Your task to perform on an android device: Go to settings Image 0: 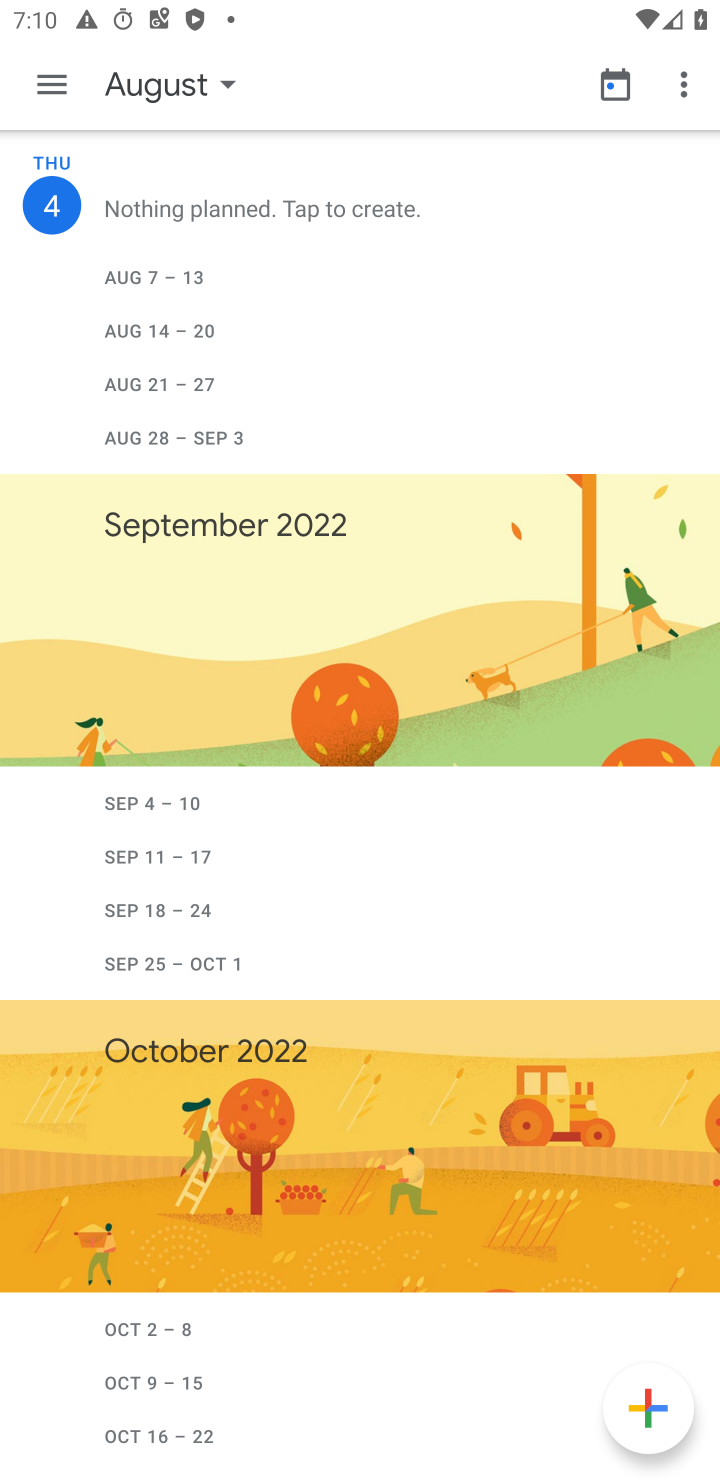
Step 0: press home button
Your task to perform on an android device: Go to settings Image 1: 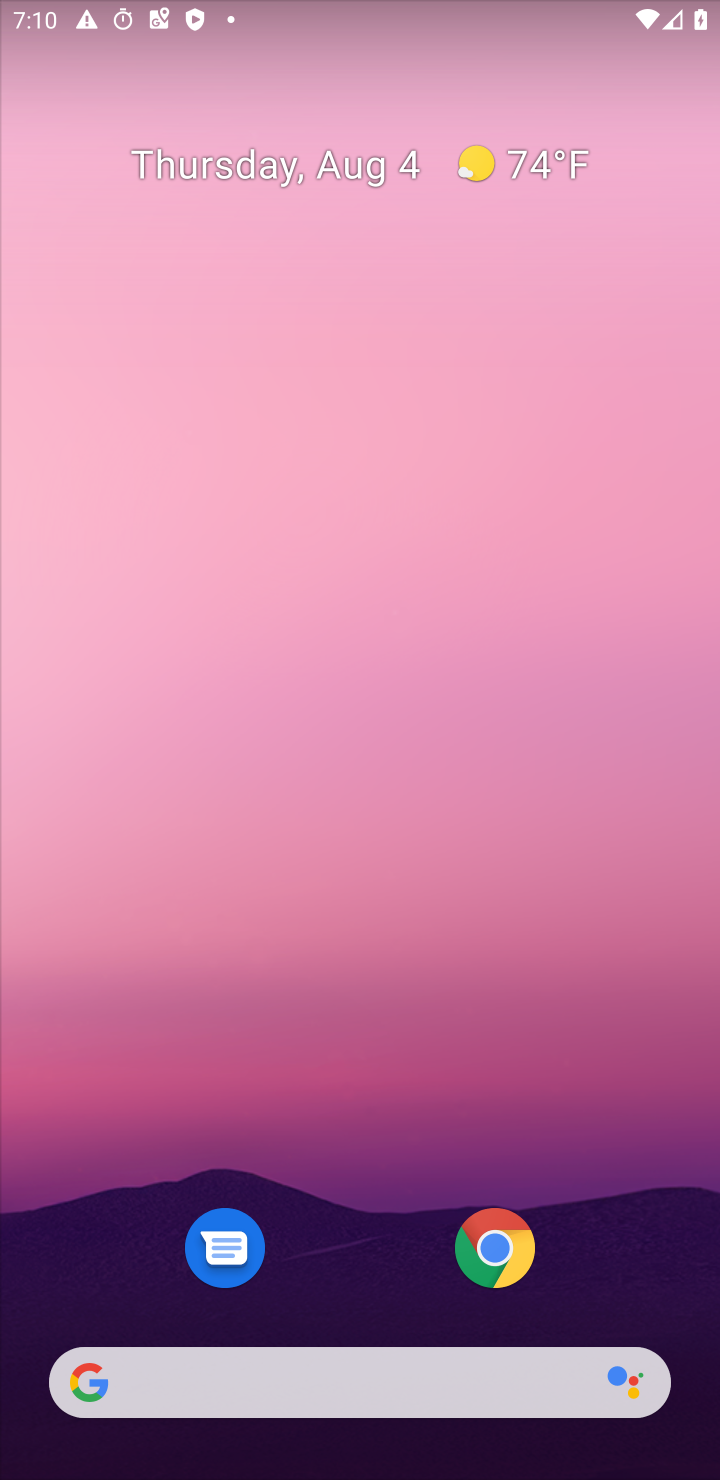
Step 1: click (240, 611)
Your task to perform on an android device: Go to settings Image 2: 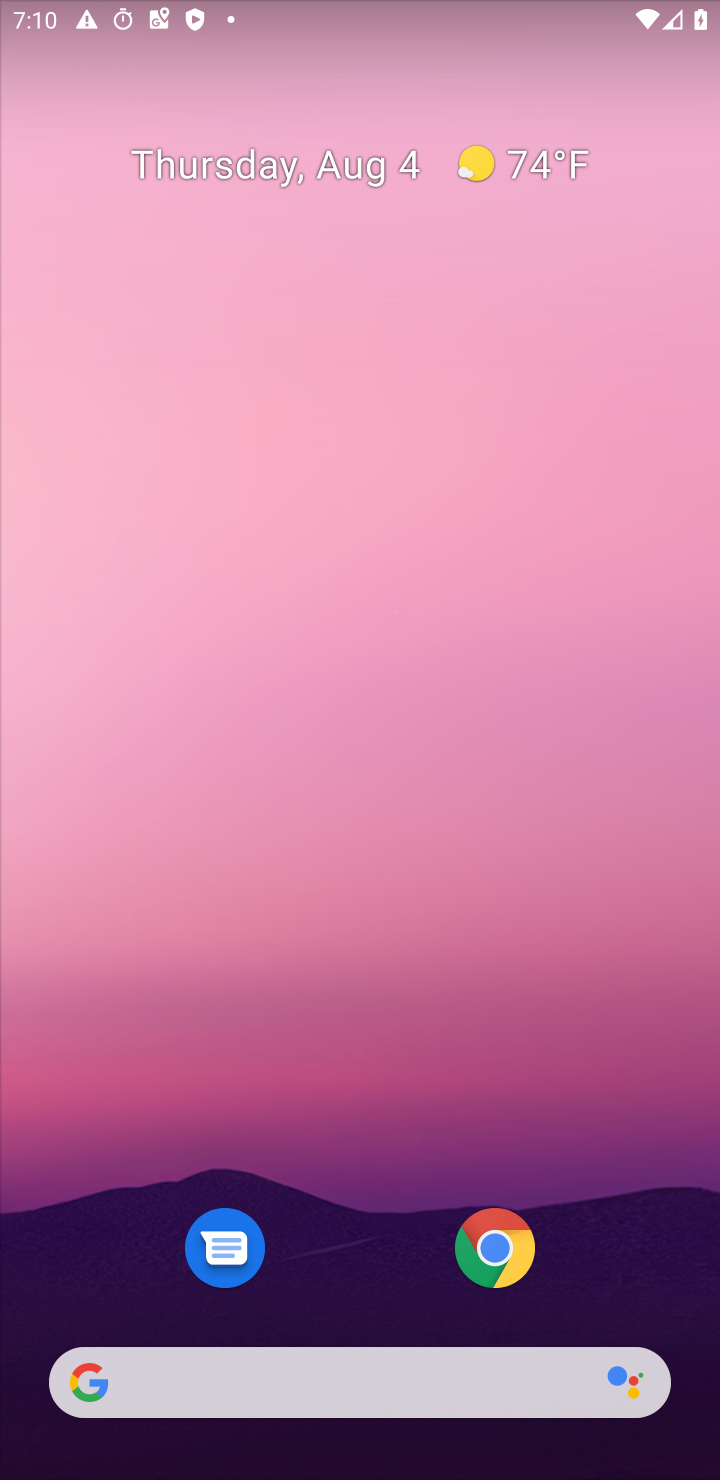
Step 2: drag from (365, 1268) to (274, 305)
Your task to perform on an android device: Go to settings Image 3: 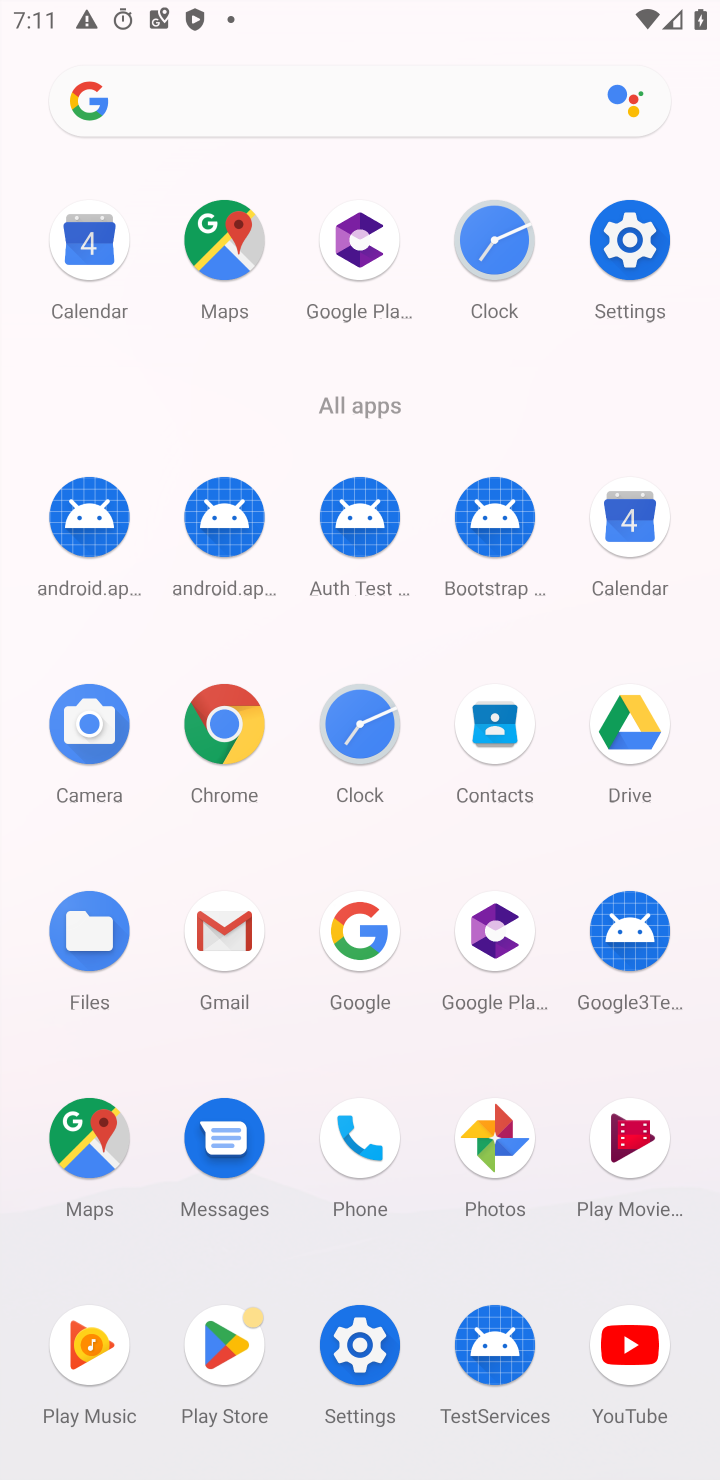
Step 3: click (623, 234)
Your task to perform on an android device: Go to settings Image 4: 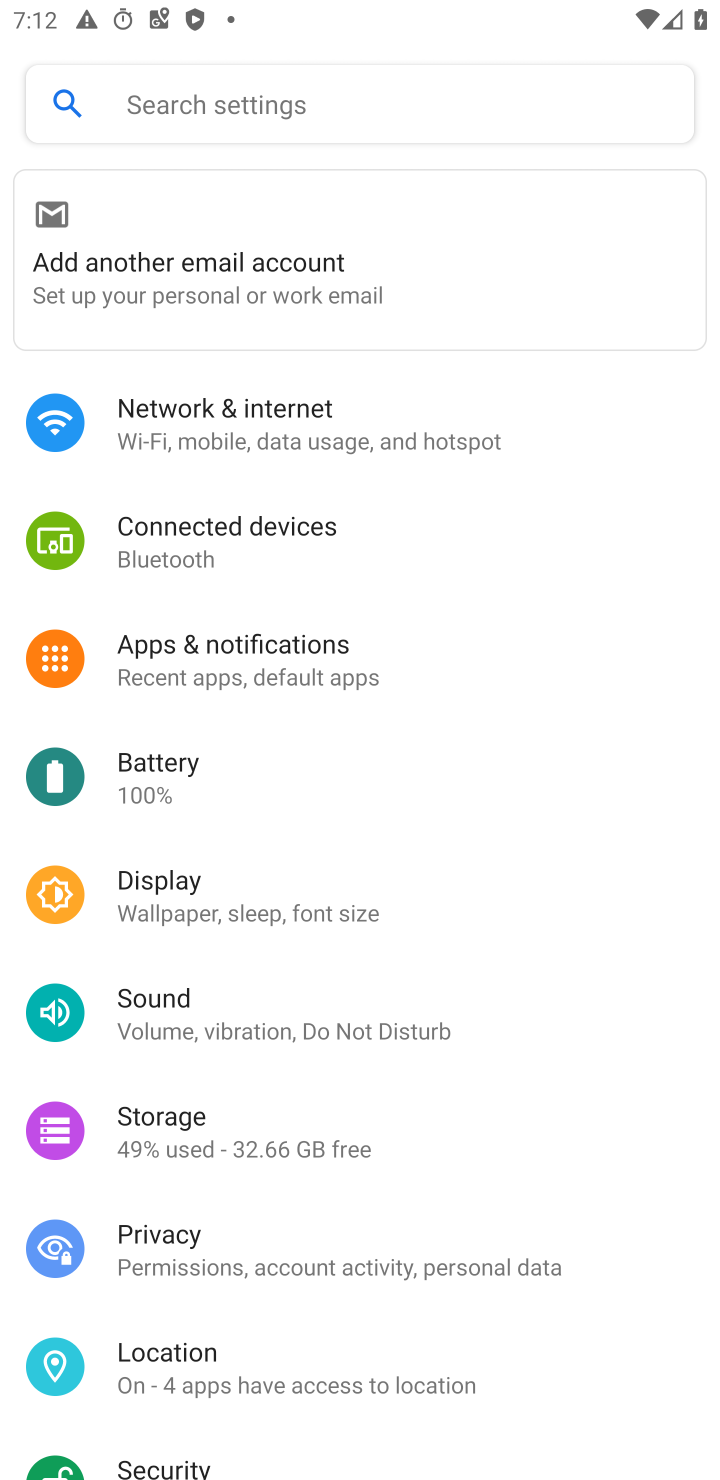
Step 4: task complete